Your task to perform on an android device: turn on airplane mode Image 0: 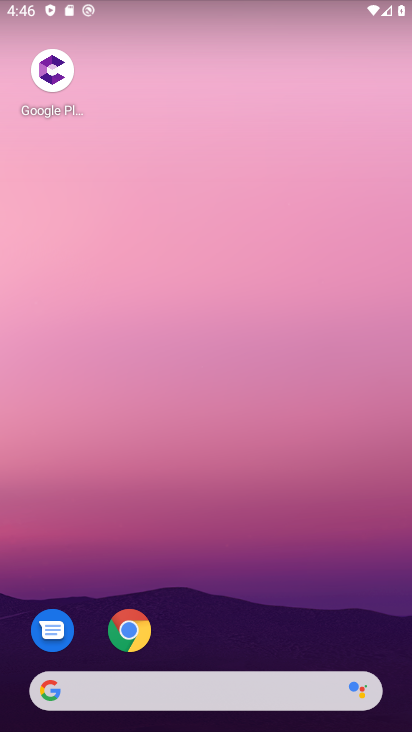
Step 0: drag from (279, 639) to (231, 26)
Your task to perform on an android device: turn on airplane mode Image 1: 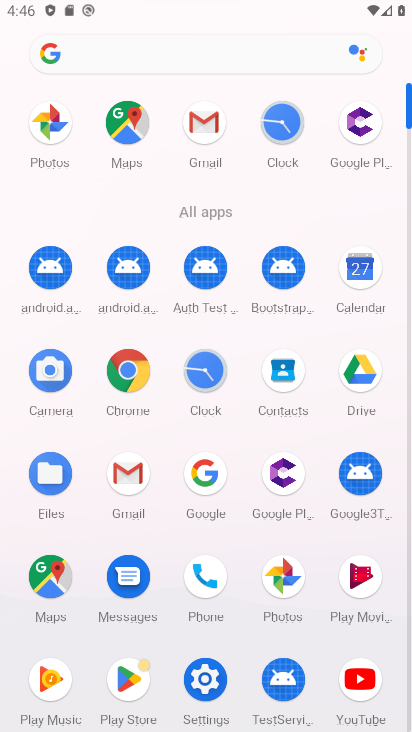
Step 1: click (197, 682)
Your task to perform on an android device: turn on airplane mode Image 2: 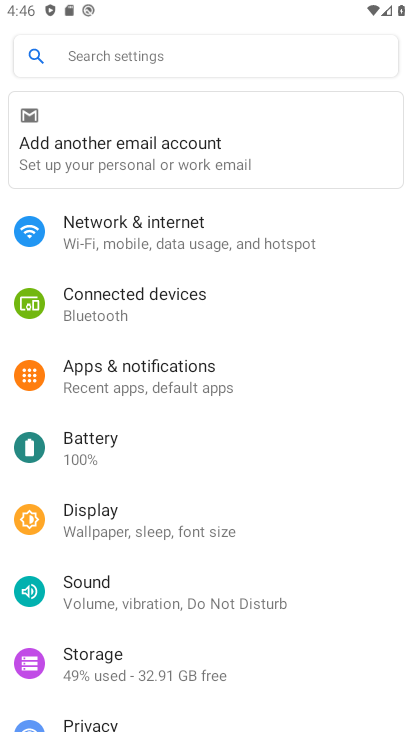
Step 2: click (193, 246)
Your task to perform on an android device: turn on airplane mode Image 3: 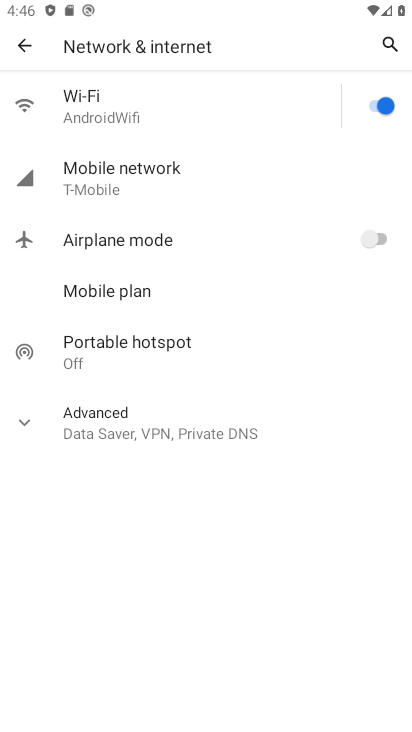
Step 3: click (385, 244)
Your task to perform on an android device: turn on airplane mode Image 4: 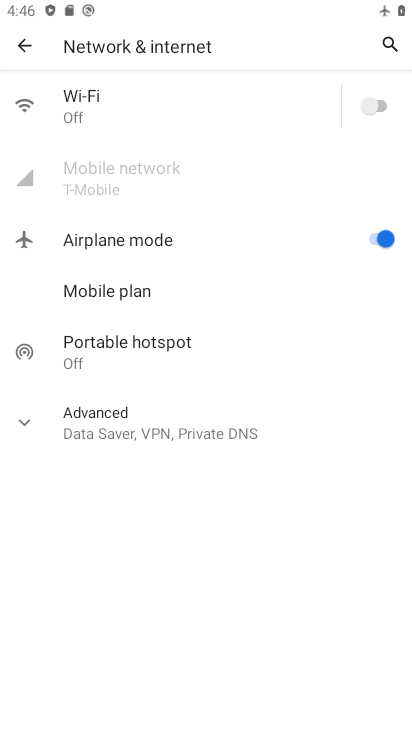
Step 4: task complete